Your task to perform on an android device: manage bookmarks in the chrome app Image 0: 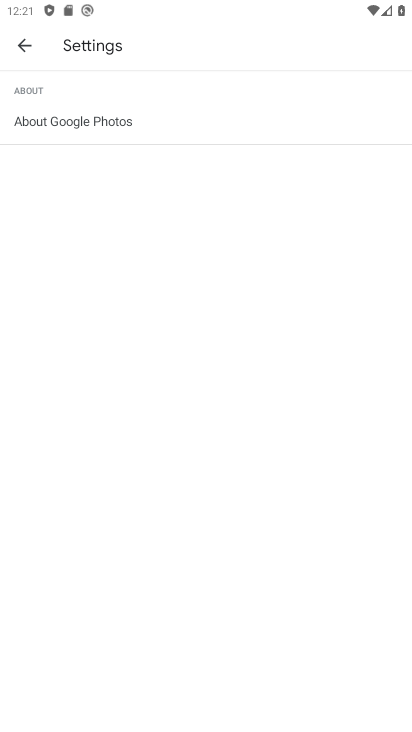
Step 0: press home button
Your task to perform on an android device: manage bookmarks in the chrome app Image 1: 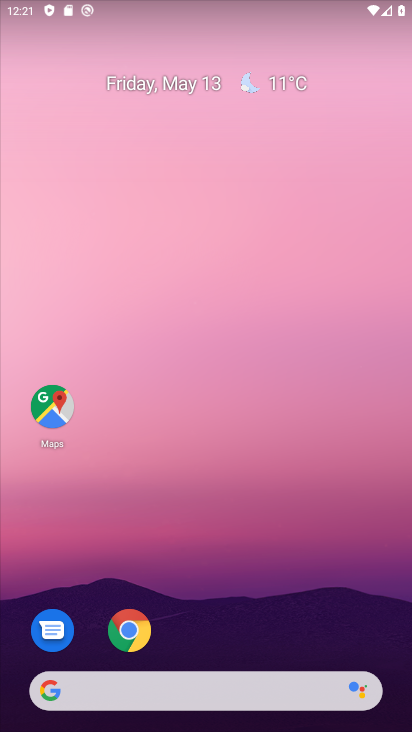
Step 1: click (140, 636)
Your task to perform on an android device: manage bookmarks in the chrome app Image 2: 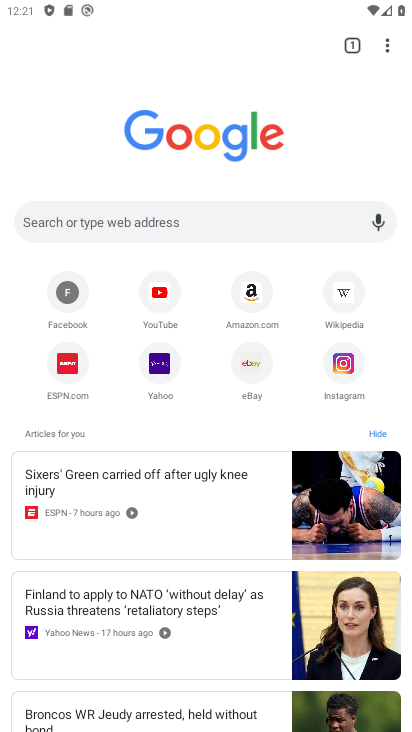
Step 2: click (386, 45)
Your task to perform on an android device: manage bookmarks in the chrome app Image 3: 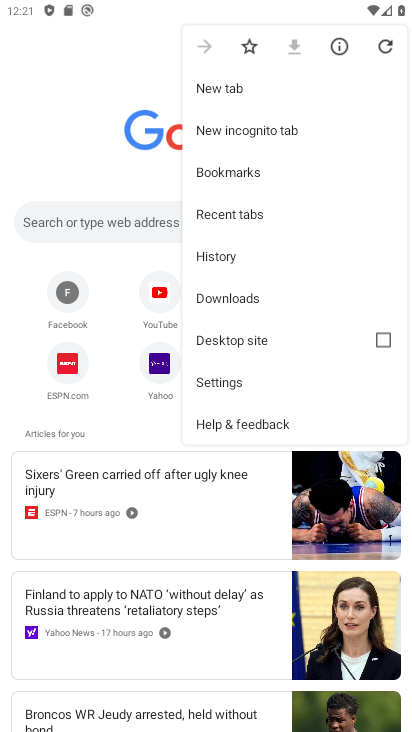
Step 3: click (248, 166)
Your task to perform on an android device: manage bookmarks in the chrome app Image 4: 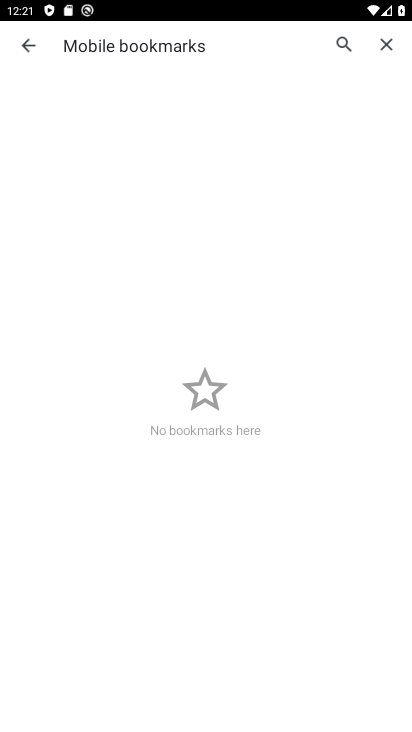
Step 4: task complete